Your task to perform on an android device: Go to sound settings Image 0: 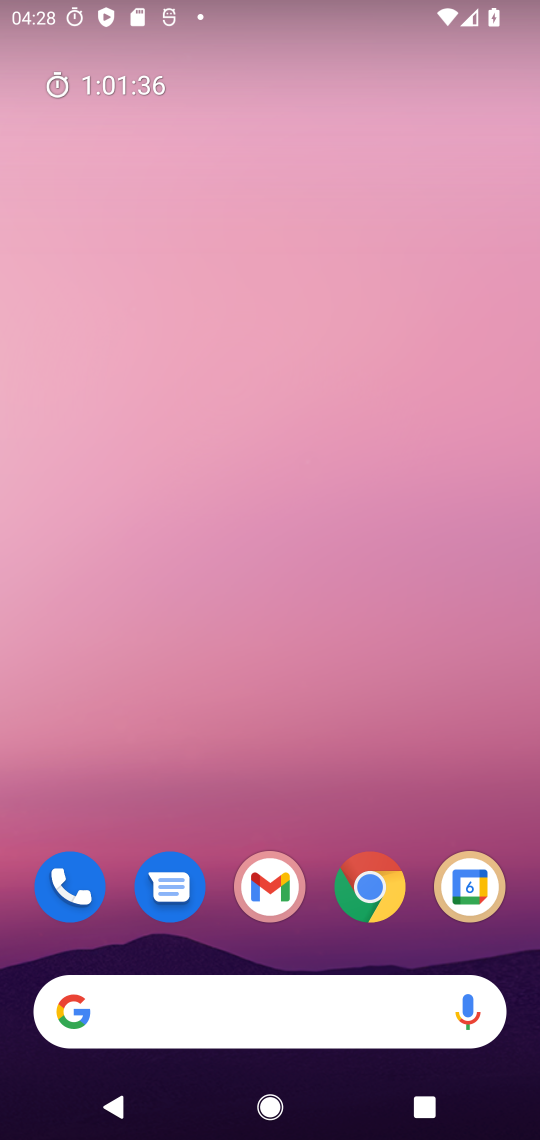
Step 0: press home button
Your task to perform on an android device: Go to sound settings Image 1: 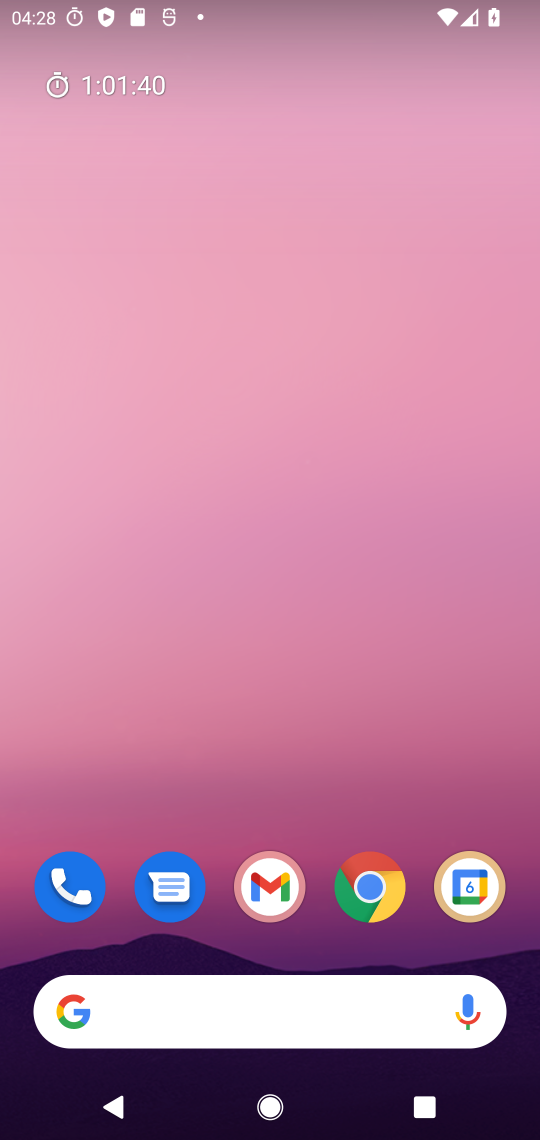
Step 1: drag from (420, 790) to (424, 195)
Your task to perform on an android device: Go to sound settings Image 2: 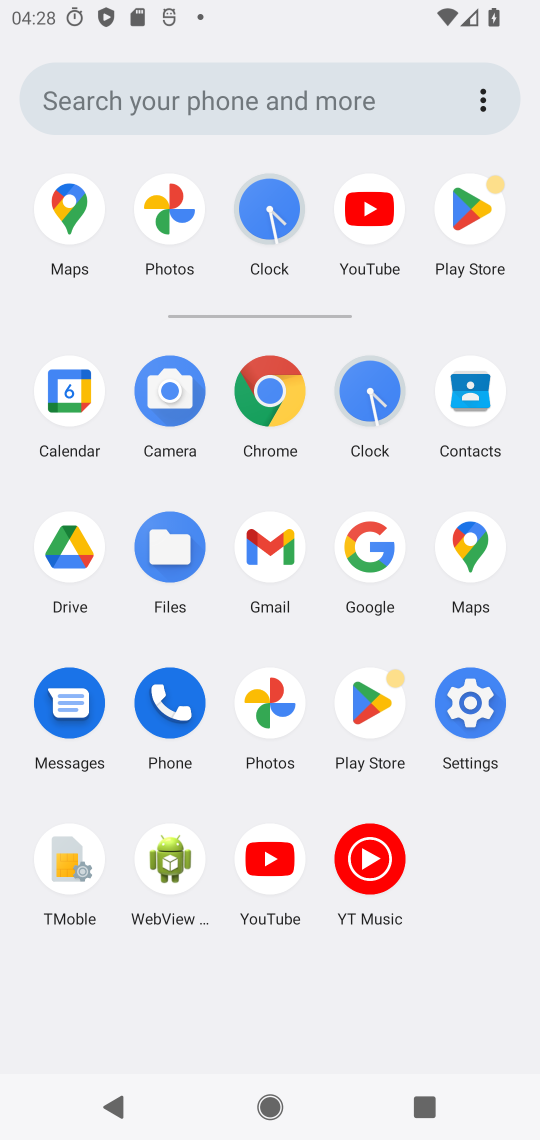
Step 2: click (460, 723)
Your task to perform on an android device: Go to sound settings Image 3: 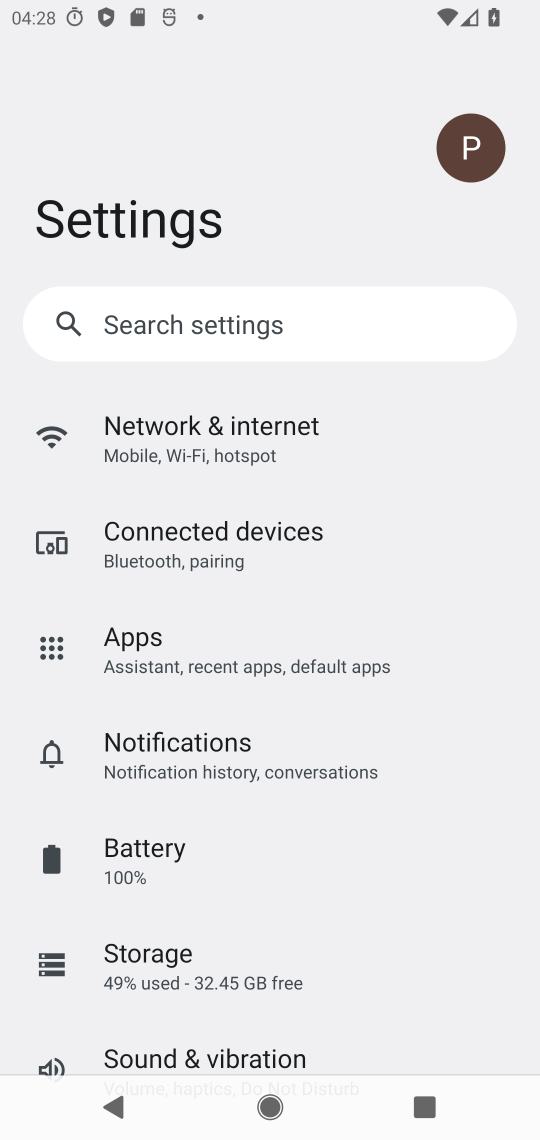
Step 3: drag from (419, 836) to (451, 632)
Your task to perform on an android device: Go to sound settings Image 4: 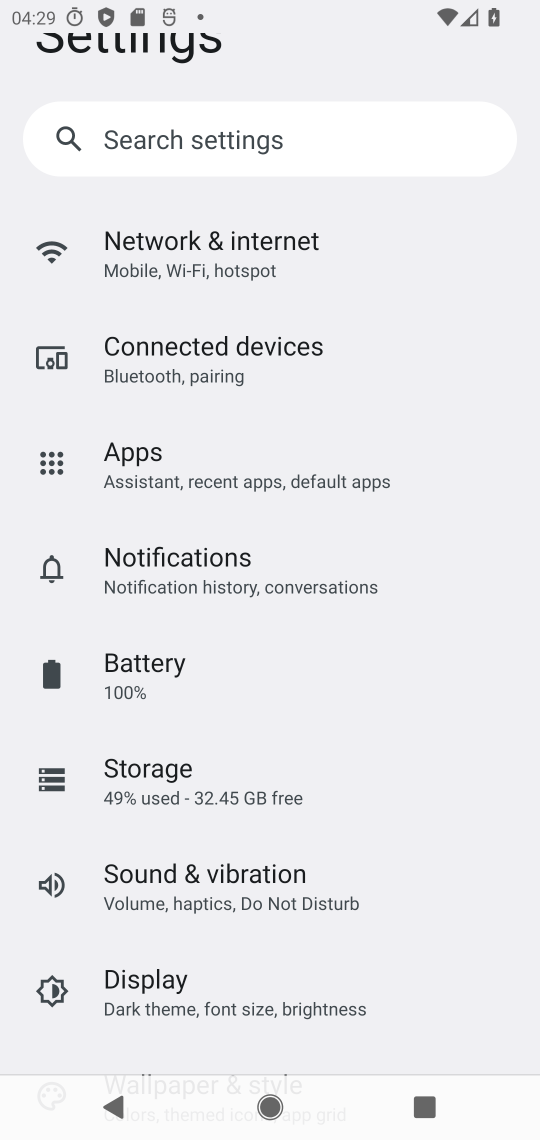
Step 4: drag from (434, 751) to (431, 570)
Your task to perform on an android device: Go to sound settings Image 5: 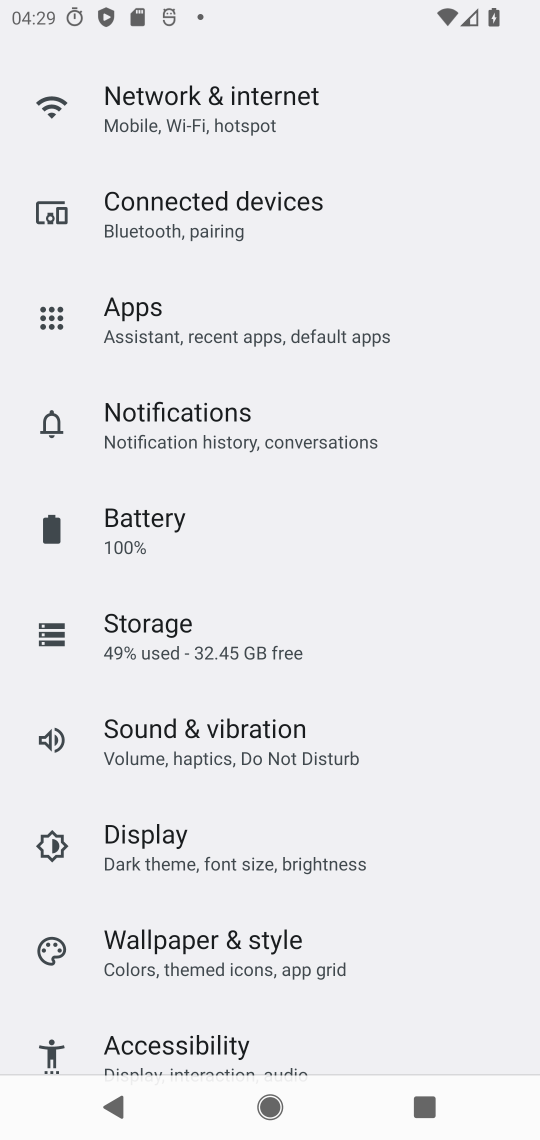
Step 5: drag from (423, 747) to (442, 567)
Your task to perform on an android device: Go to sound settings Image 6: 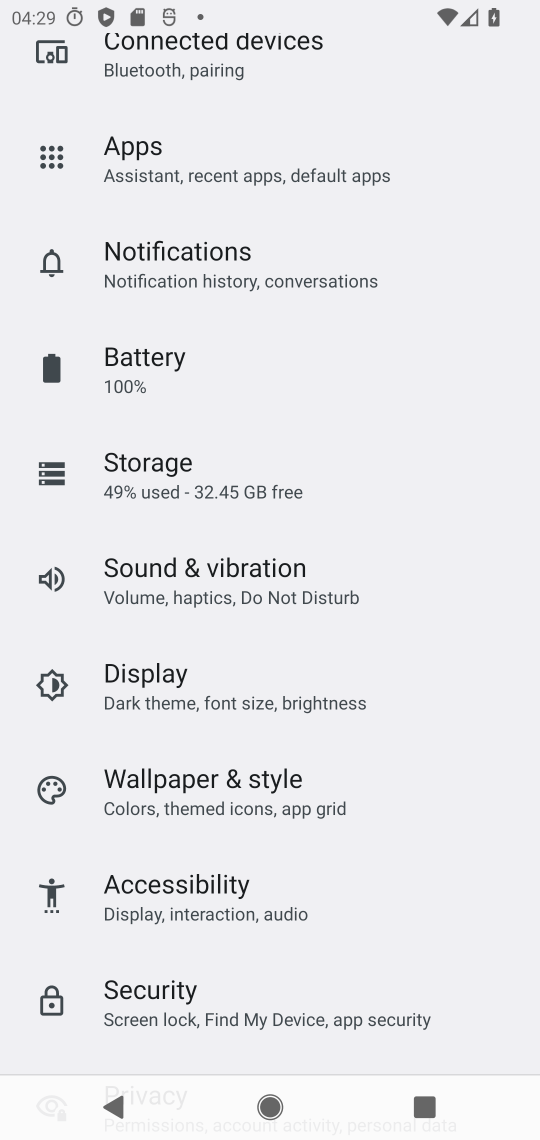
Step 6: drag from (453, 722) to (460, 497)
Your task to perform on an android device: Go to sound settings Image 7: 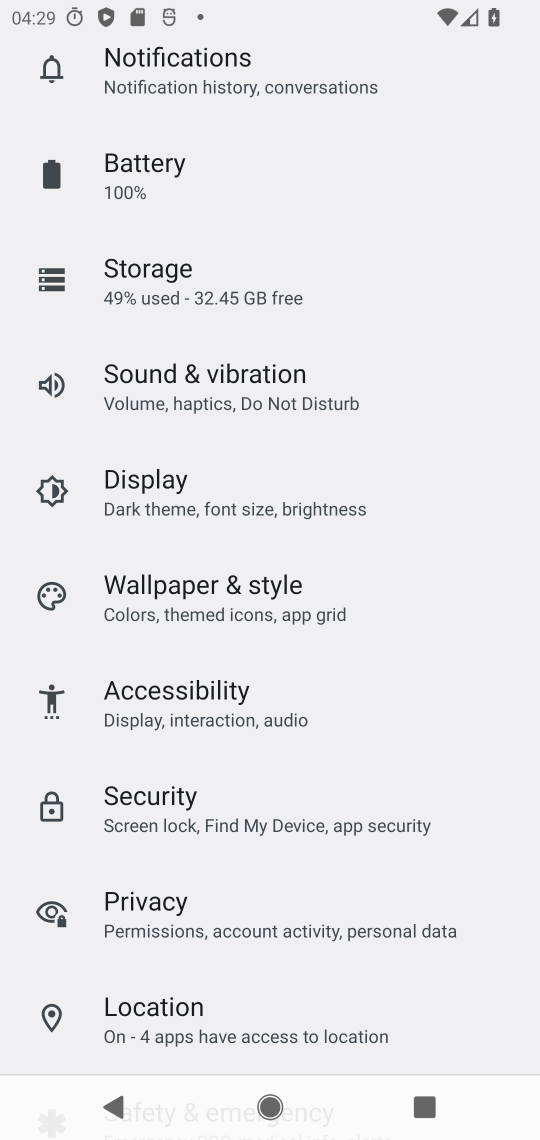
Step 7: click (388, 403)
Your task to perform on an android device: Go to sound settings Image 8: 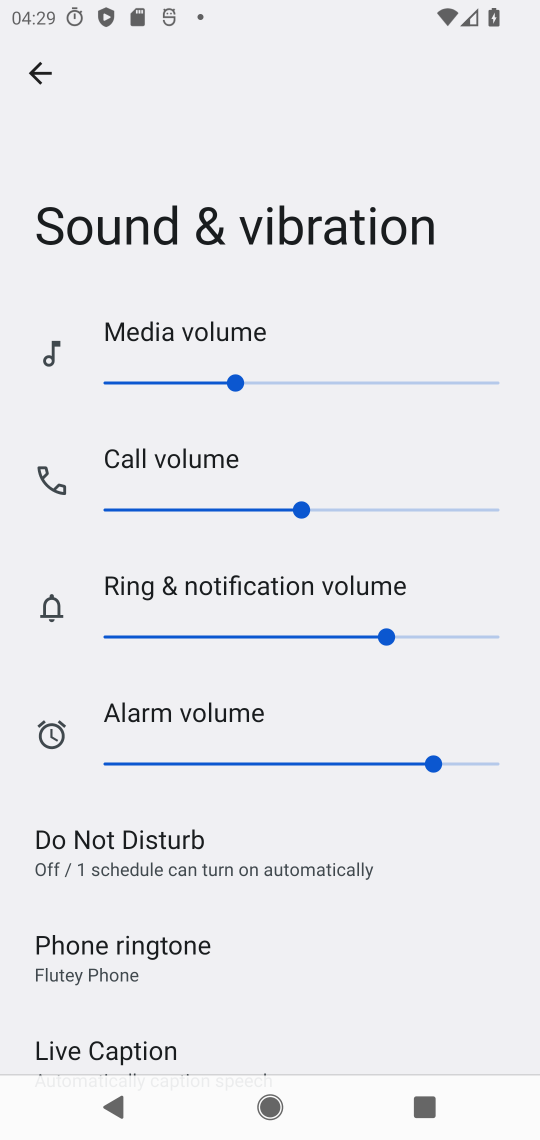
Step 8: task complete